Your task to perform on an android device: see creations saved in the google photos Image 0: 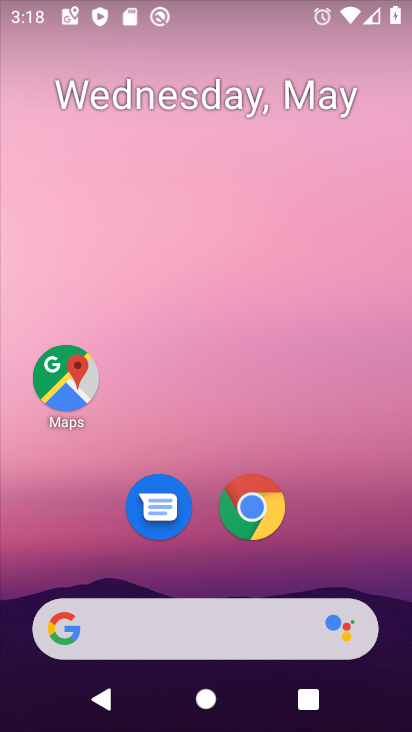
Step 0: drag from (206, 564) to (267, 129)
Your task to perform on an android device: see creations saved in the google photos Image 1: 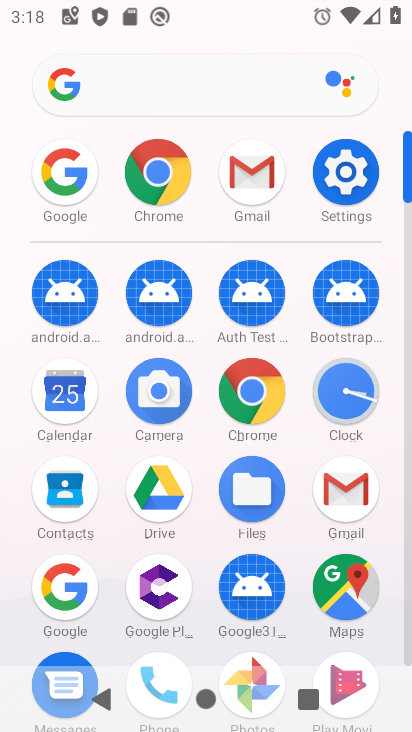
Step 1: drag from (202, 633) to (222, 128)
Your task to perform on an android device: see creations saved in the google photos Image 2: 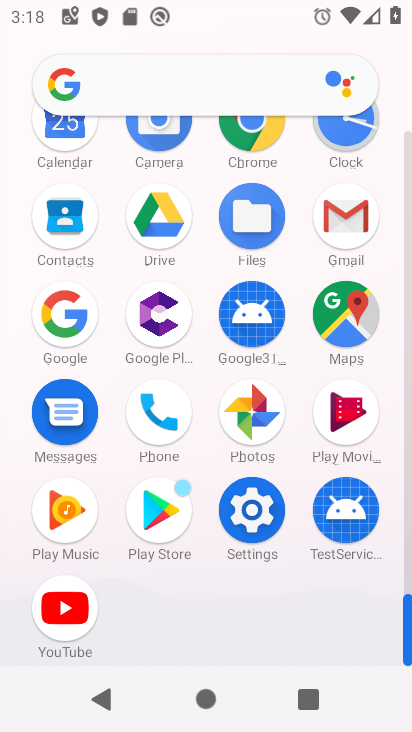
Step 2: click (245, 417)
Your task to perform on an android device: see creations saved in the google photos Image 3: 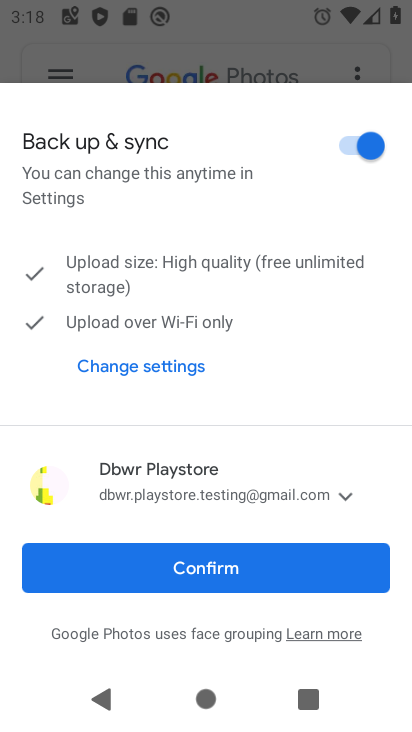
Step 3: click (272, 562)
Your task to perform on an android device: see creations saved in the google photos Image 4: 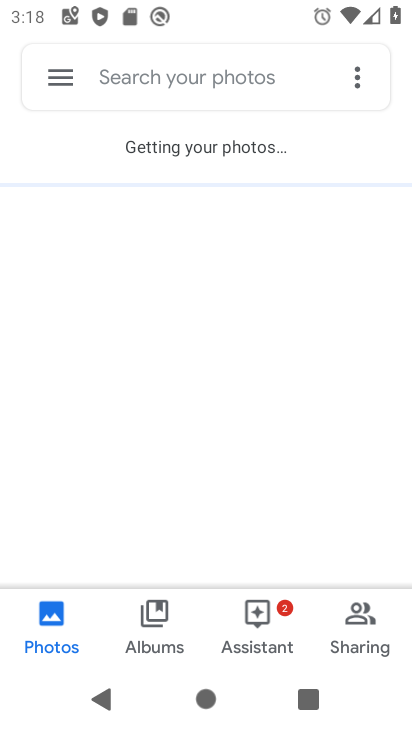
Step 4: click (221, 87)
Your task to perform on an android device: see creations saved in the google photos Image 5: 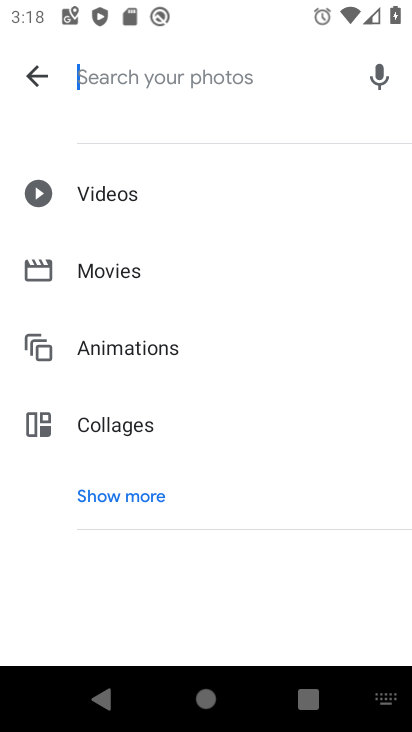
Step 5: click (132, 491)
Your task to perform on an android device: see creations saved in the google photos Image 6: 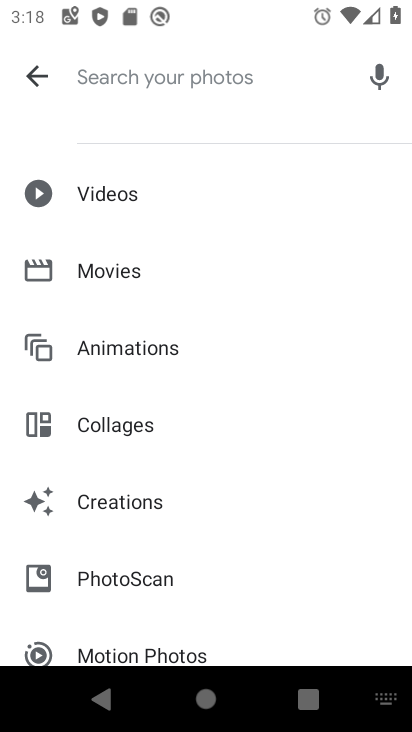
Step 6: click (150, 501)
Your task to perform on an android device: see creations saved in the google photos Image 7: 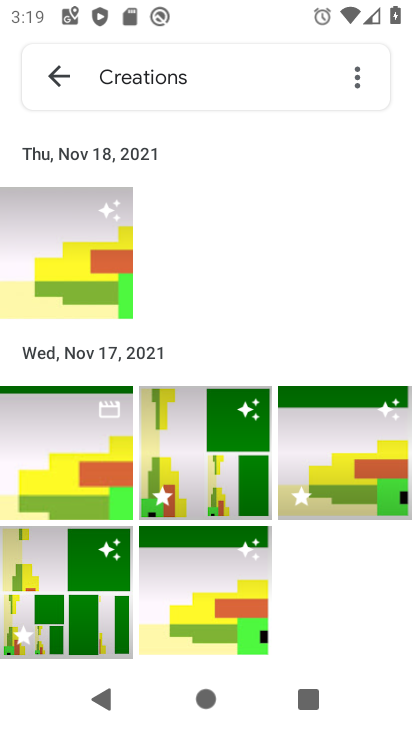
Step 7: task complete